Your task to perform on an android device: toggle priority inbox in the gmail app Image 0: 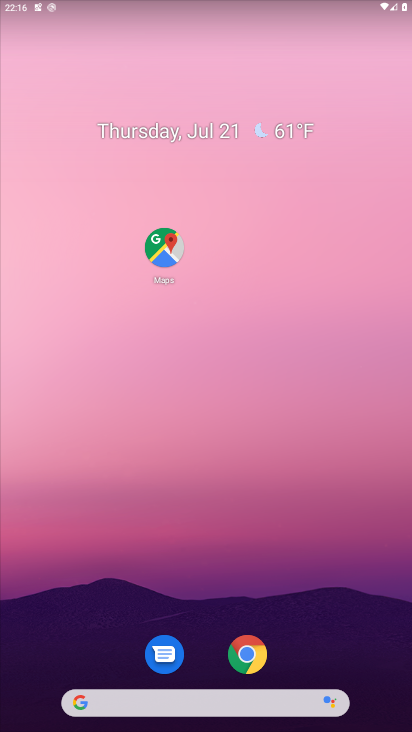
Step 0: click (108, 701)
Your task to perform on an android device: toggle priority inbox in the gmail app Image 1: 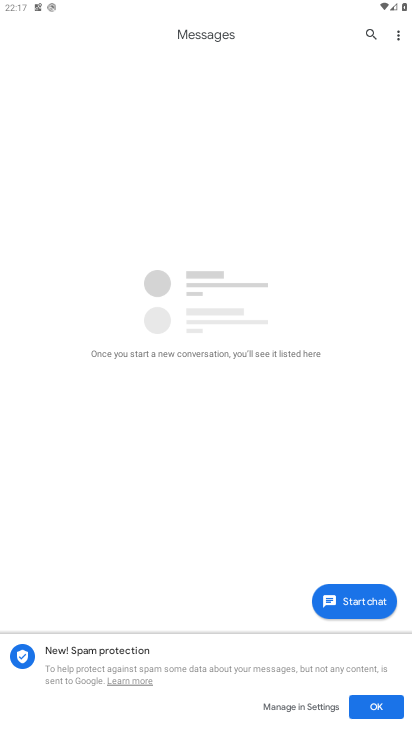
Step 1: press home button
Your task to perform on an android device: toggle priority inbox in the gmail app Image 2: 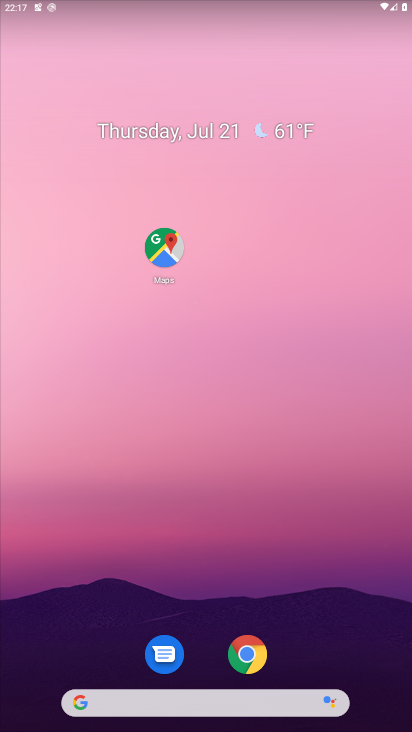
Step 2: drag from (33, 682) to (221, 142)
Your task to perform on an android device: toggle priority inbox in the gmail app Image 3: 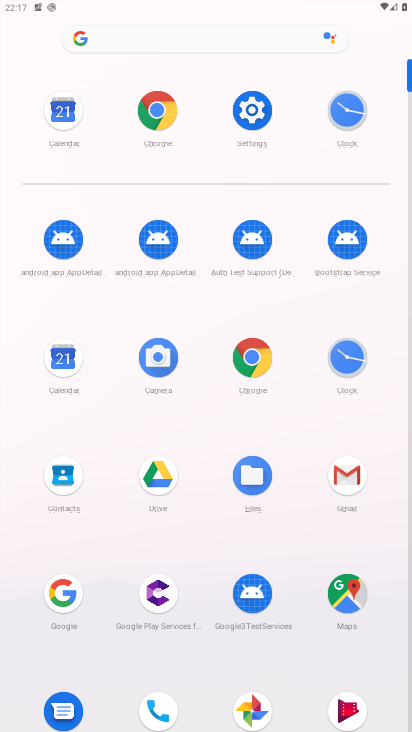
Step 3: click (348, 479)
Your task to perform on an android device: toggle priority inbox in the gmail app Image 4: 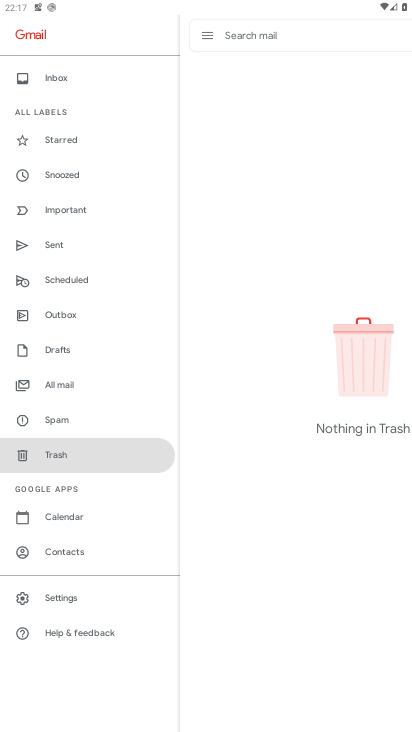
Step 4: click (70, 601)
Your task to perform on an android device: toggle priority inbox in the gmail app Image 5: 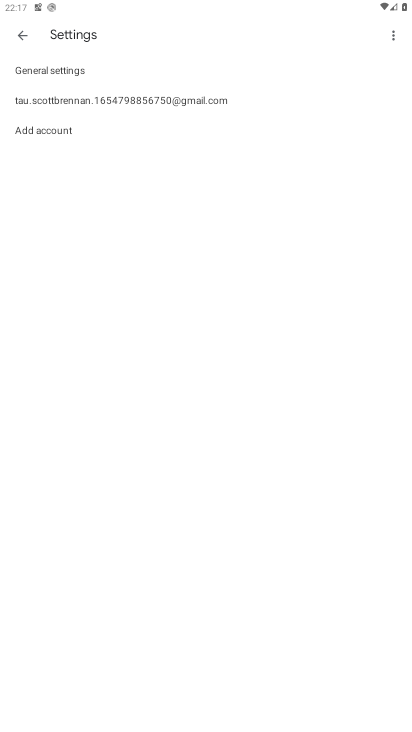
Step 5: click (75, 71)
Your task to perform on an android device: toggle priority inbox in the gmail app Image 6: 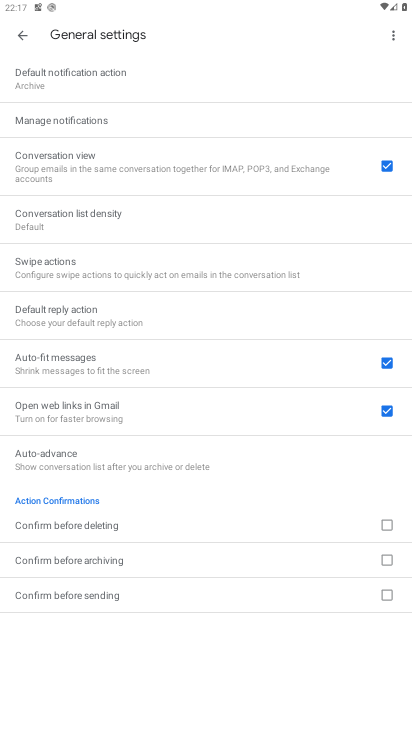
Step 6: click (20, 40)
Your task to perform on an android device: toggle priority inbox in the gmail app Image 7: 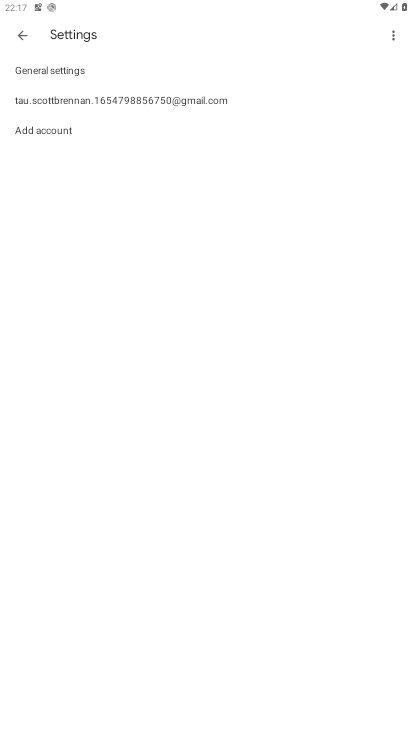
Step 7: click (48, 95)
Your task to perform on an android device: toggle priority inbox in the gmail app Image 8: 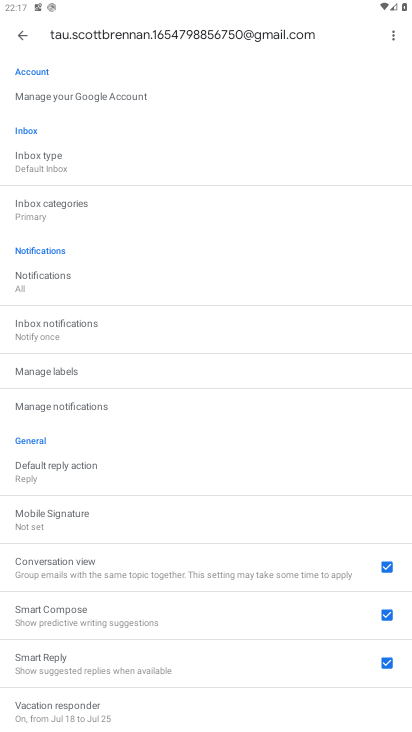
Step 8: click (67, 165)
Your task to perform on an android device: toggle priority inbox in the gmail app Image 9: 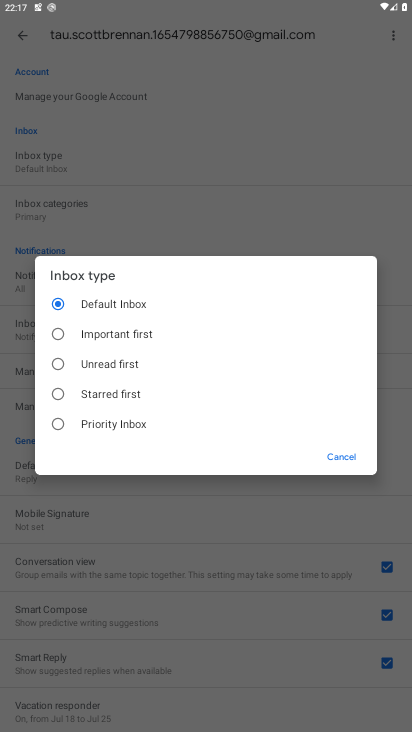
Step 9: click (63, 426)
Your task to perform on an android device: toggle priority inbox in the gmail app Image 10: 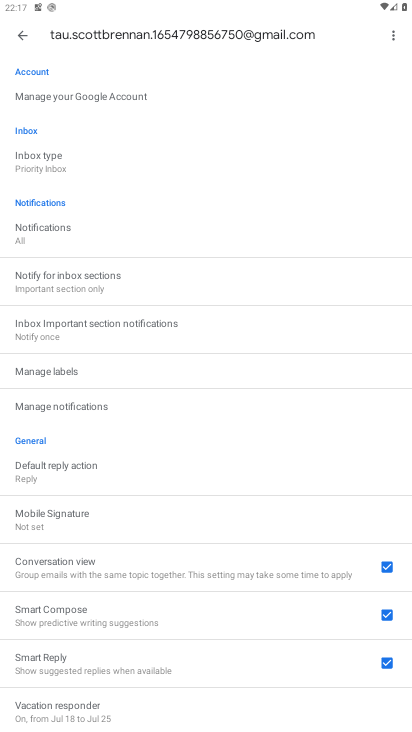
Step 10: task complete